Your task to perform on an android device: check google app version Image 0: 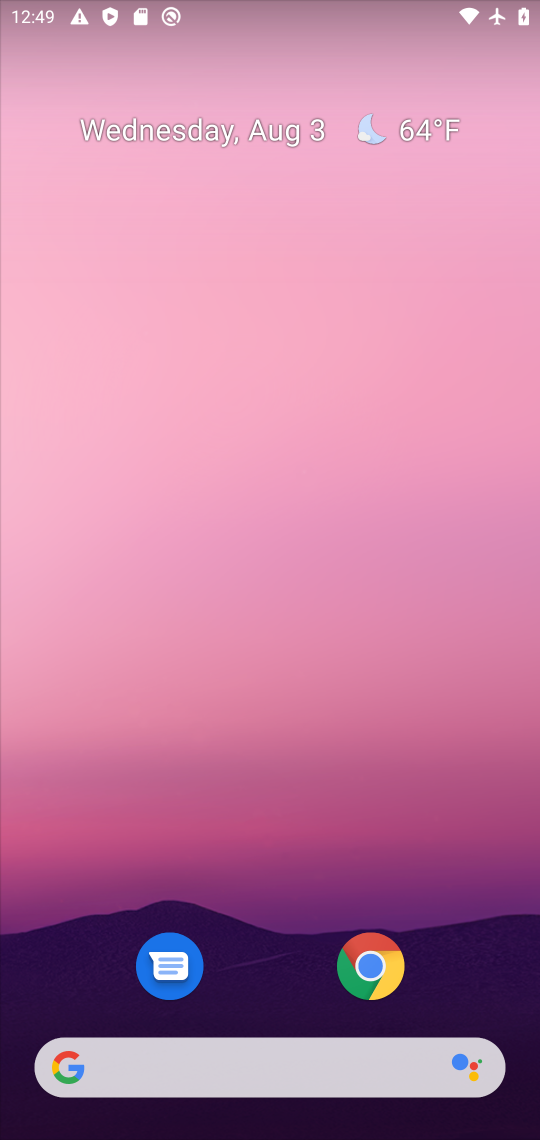
Step 0: drag from (262, 963) to (290, 212)
Your task to perform on an android device: check google app version Image 1: 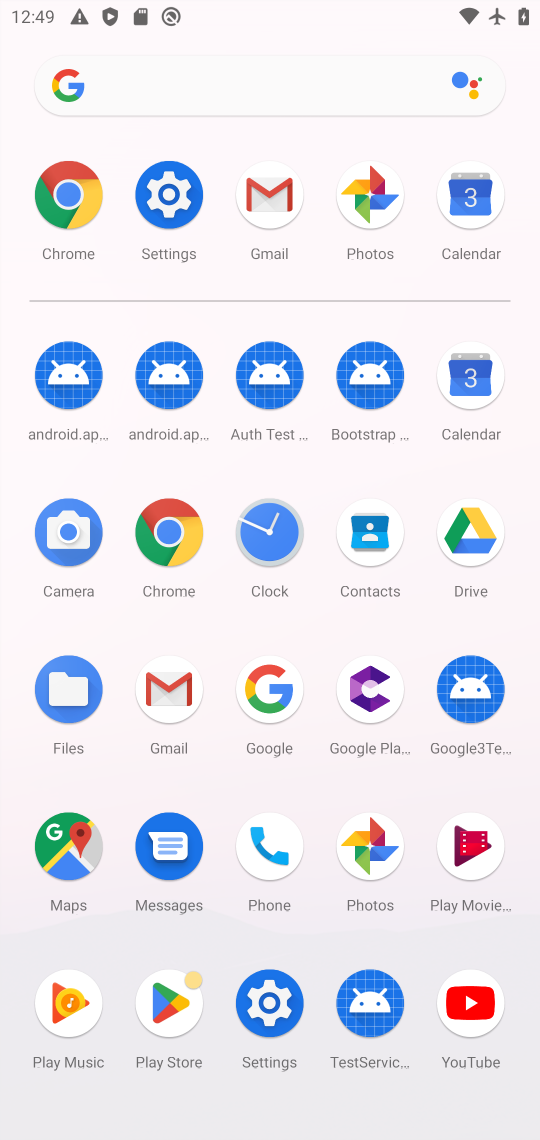
Step 1: click (291, 710)
Your task to perform on an android device: check google app version Image 2: 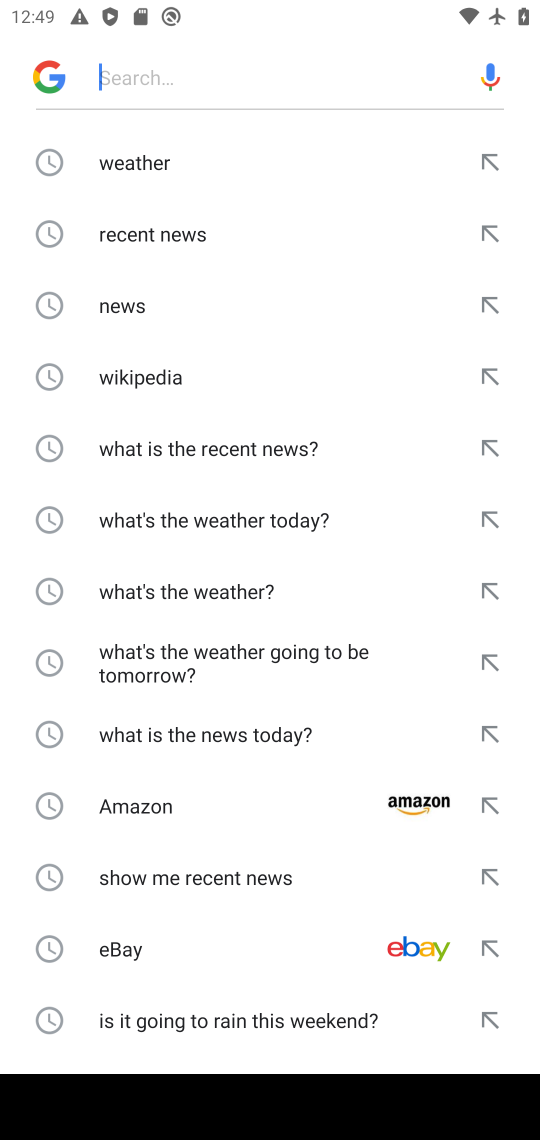
Step 2: click (40, 66)
Your task to perform on an android device: check google app version Image 3: 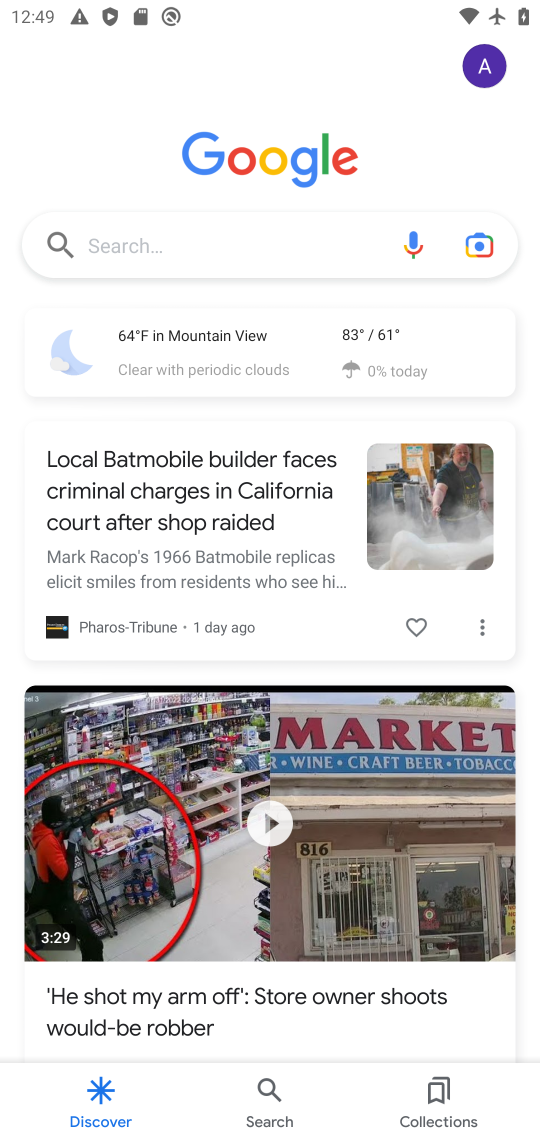
Step 3: click (480, 73)
Your task to perform on an android device: check google app version Image 4: 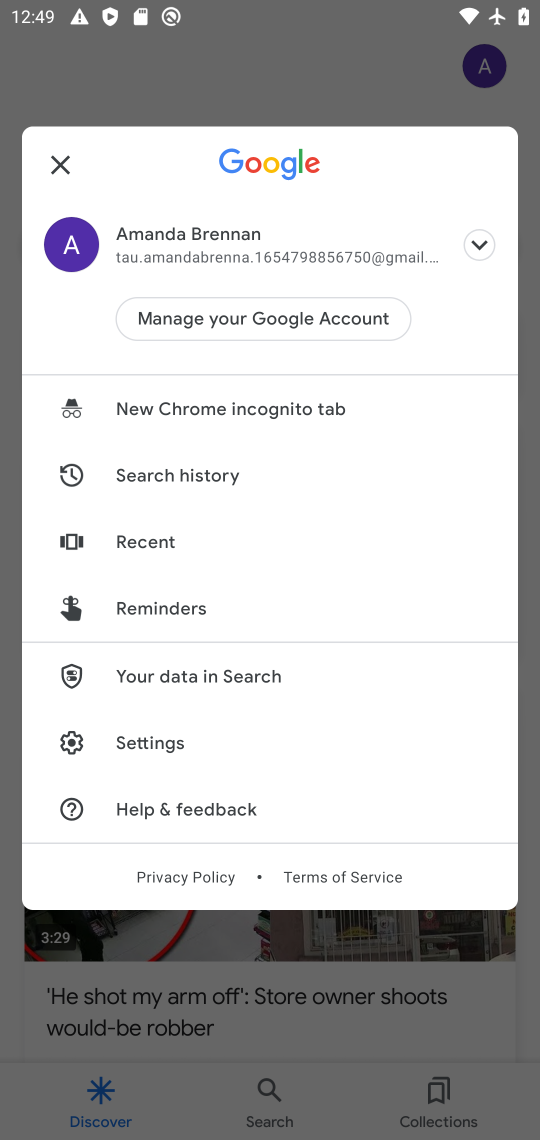
Step 4: click (110, 752)
Your task to perform on an android device: check google app version Image 5: 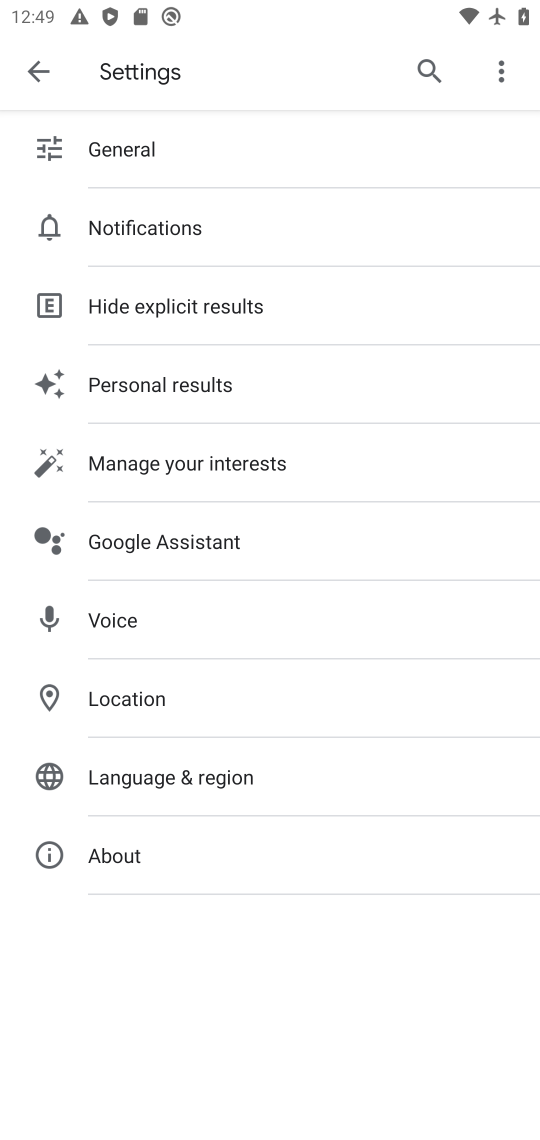
Step 5: click (217, 865)
Your task to perform on an android device: check google app version Image 6: 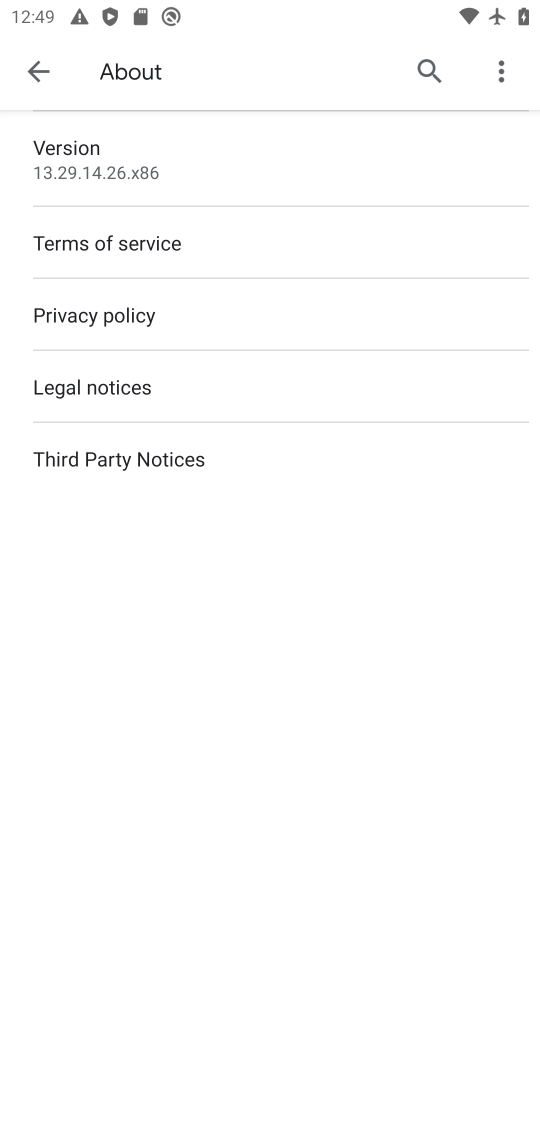
Step 6: click (230, 190)
Your task to perform on an android device: check google app version Image 7: 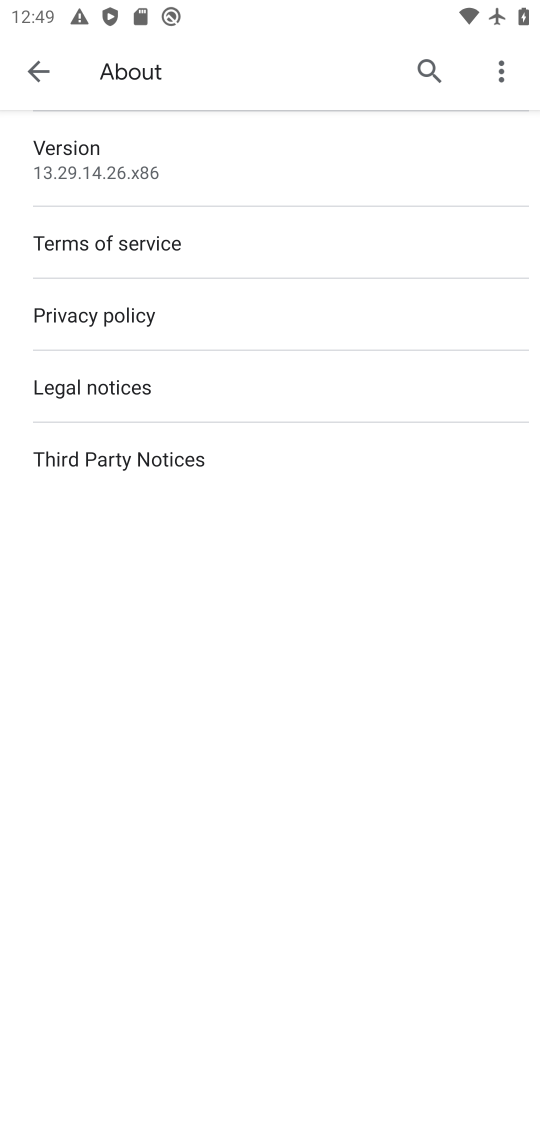
Step 7: click (394, 184)
Your task to perform on an android device: check google app version Image 8: 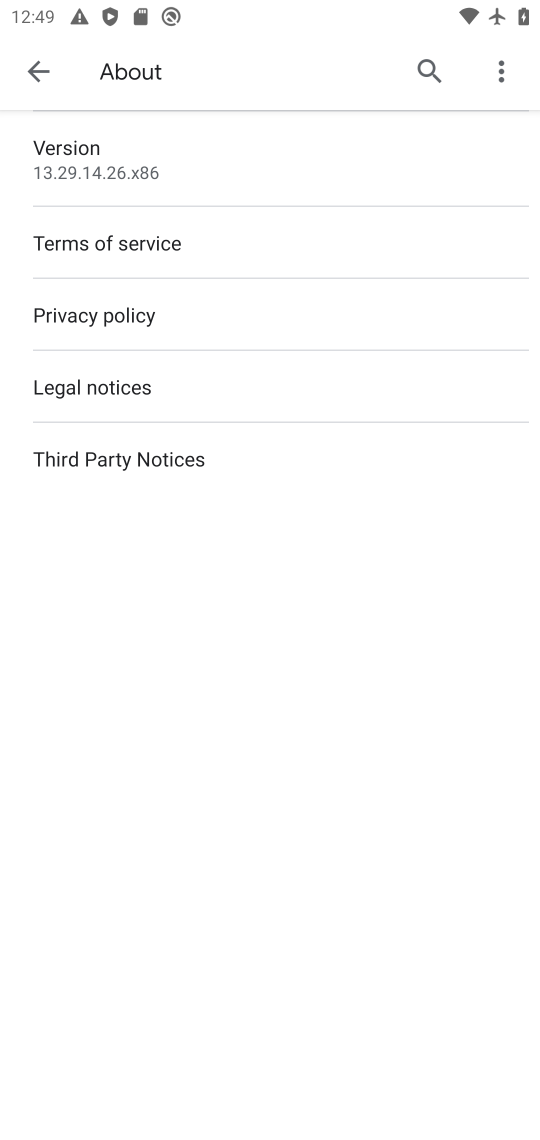
Step 8: task complete